Your task to perform on an android device: Open calendar and show me the fourth week of next month Image 0: 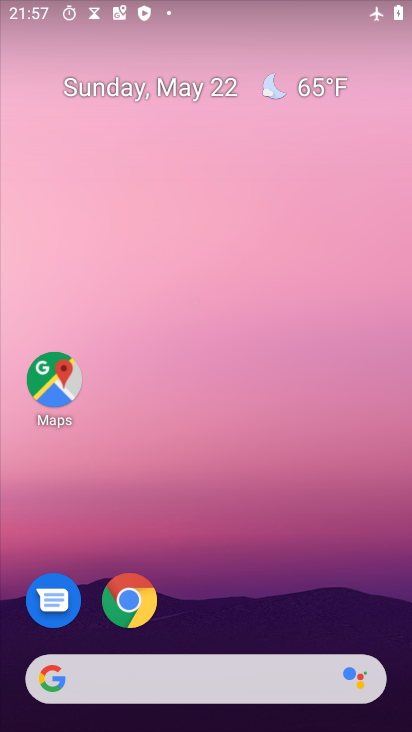
Step 0: drag from (191, 591) to (206, 148)
Your task to perform on an android device: Open calendar and show me the fourth week of next month Image 1: 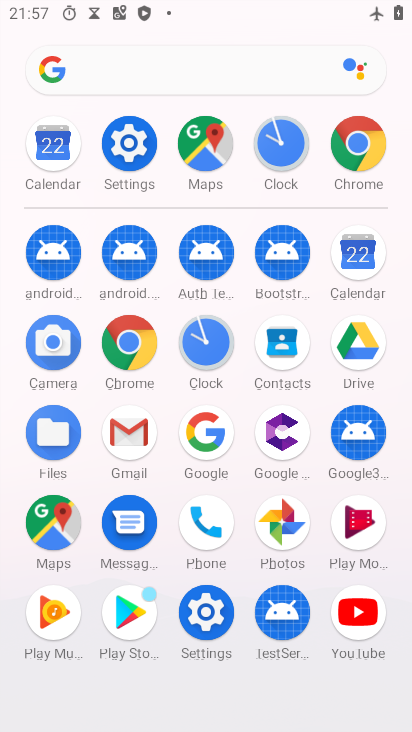
Step 1: click (355, 284)
Your task to perform on an android device: Open calendar and show me the fourth week of next month Image 2: 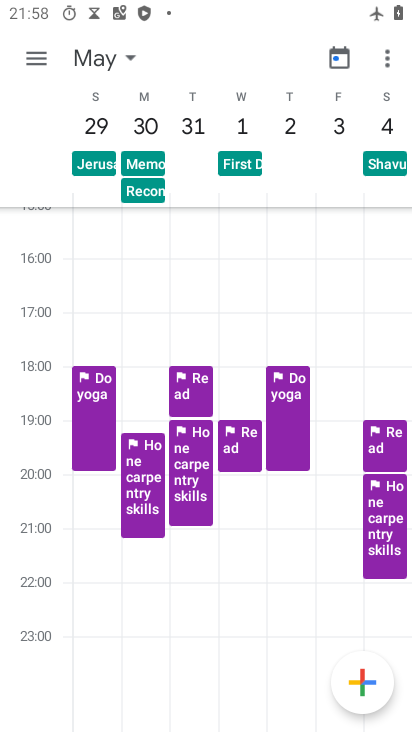
Step 2: click (121, 64)
Your task to perform on an android device: Open calendar and show me the fourth week of next month Image 3: 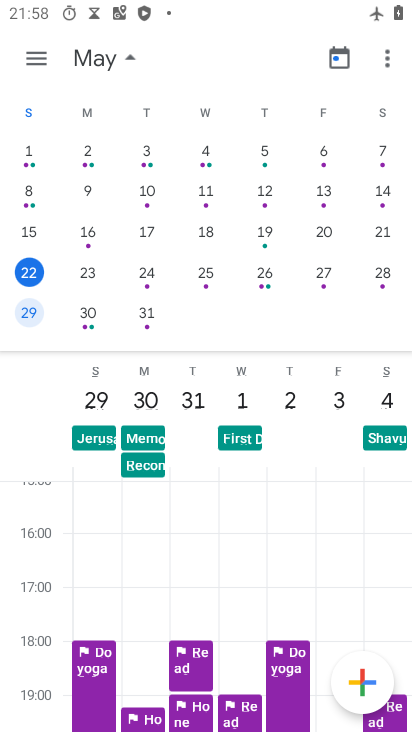
Step 3: drag from (325, 202) to (0, 210)
Your task to perform on an android device: Open calendar and show me the fourth week of next month Image 4: 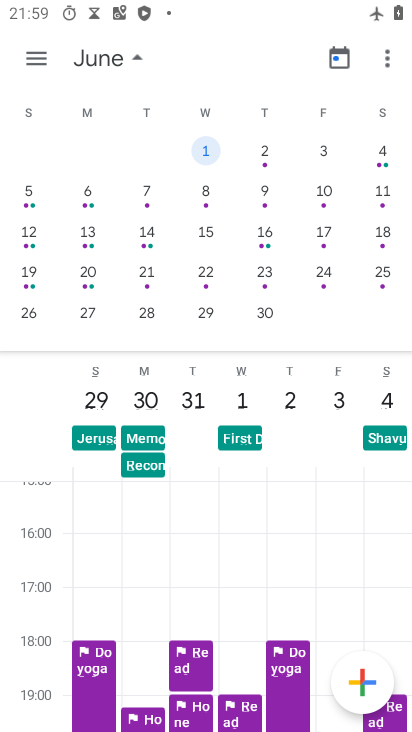
Step 4: click (32, 270)
Your task to perform on an android device: Open calendar and show me the fourth week of next month Image 5: 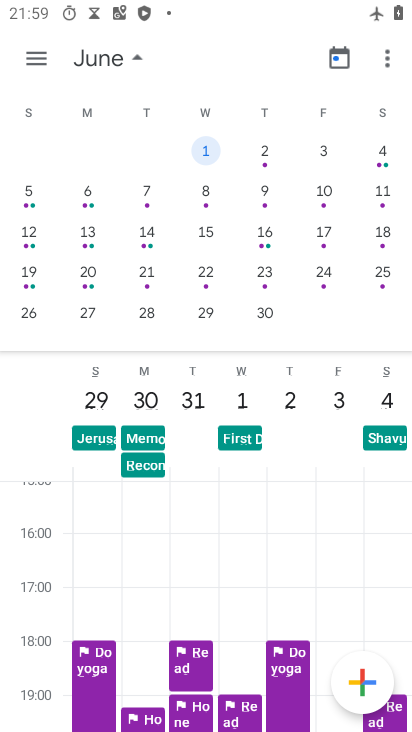
Step 5: click (31, 277)
Your task to perform on an android device: Open calendar and show me the fourth week of next month Image 6: 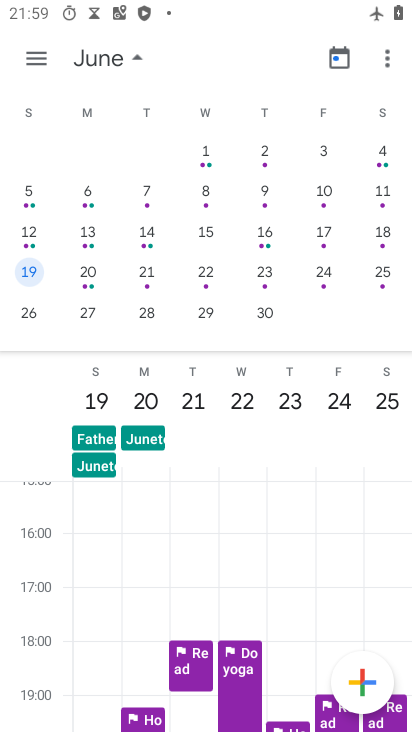
Step 6: task complete